Your task to perform on an android device: toggle improve location accuracy Image 0: 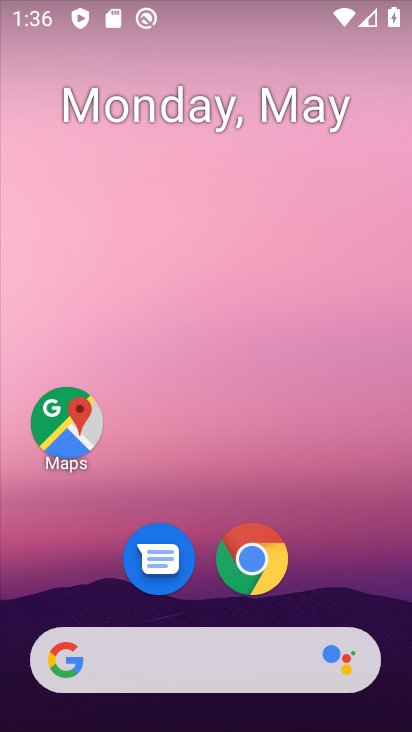
Step 0: drag from (361, 570) to (268, 53)
Your task to perform on an android device: toggle improve location accuracy Image 1: 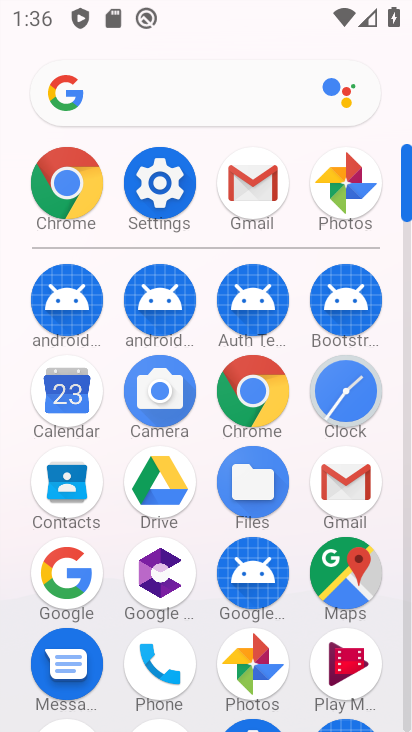
Step 1: click (173, 199)
Your task to perform on an android device: toggle improve location accuracy Image 2: 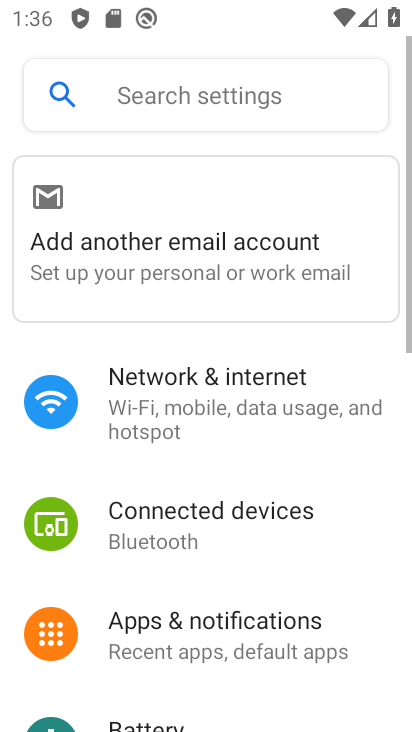
Step 2: drag from (265, 577) to (301, 217)
Your task to perform on an android device: toggle improve location accuracy Image 3: 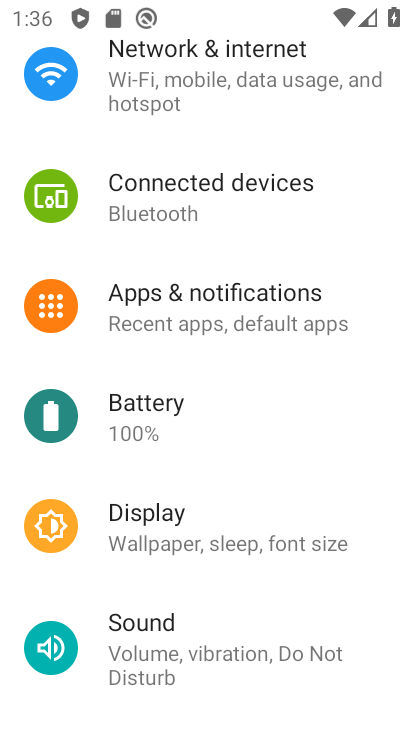
Step 3: drag from (249, 605) to (329, 211)
Your task to perform on an android device: toggle improve location accuracy Image 4: 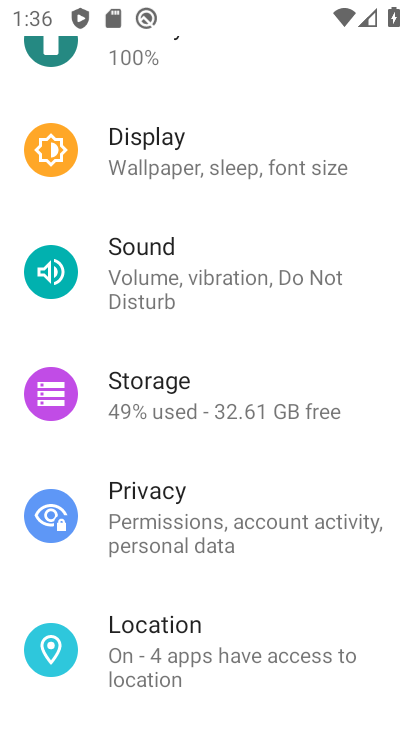
Step 4: click (220, 622)
Your task to perform on an android device: toggle improve location accuracy Image 5: 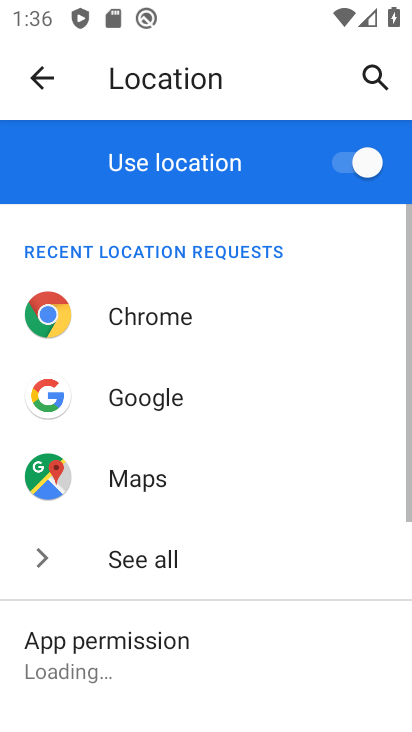
Step 5: drag from (228, 595) to (289, 185)
Your task to perform on an android device: toggle improve location accuracy Image 6: 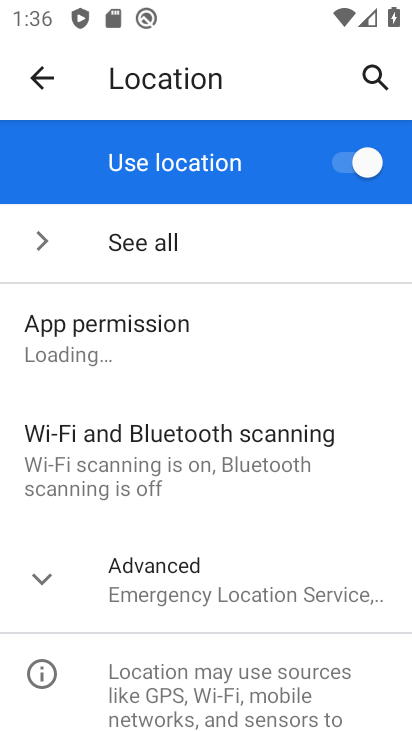
Step 6: click (209, 599)
Your task to perform on an android device: toggle improve location accuracy Image 7: 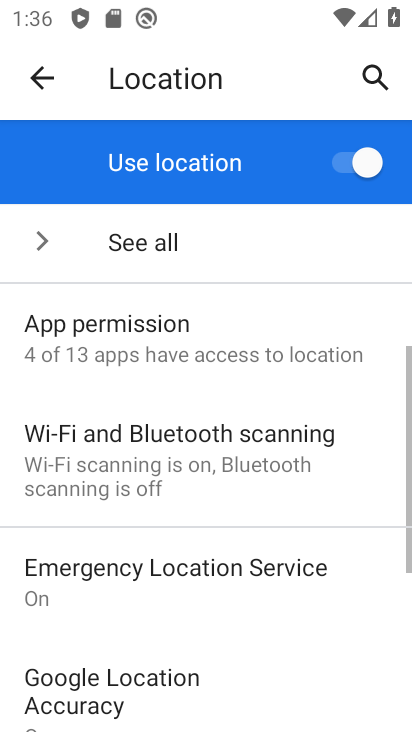
Step 7: drag from (267, 619) to (316, 207)
Your task to perform on an android device: toggle improve location accuracy Image 8: 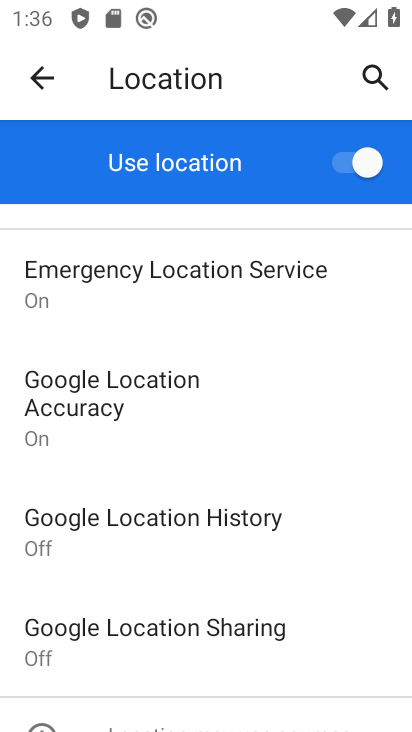
Step 8: click (142, 395)
Your task to perform on an android device: toggle improve location accuracy Image 9: 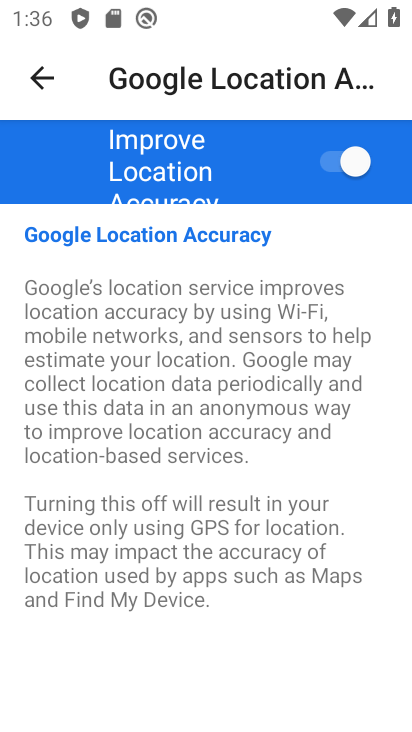
Step 9: click (328, 163)
Your task to perform on an android device: toggle improve location accuracy Image 10: 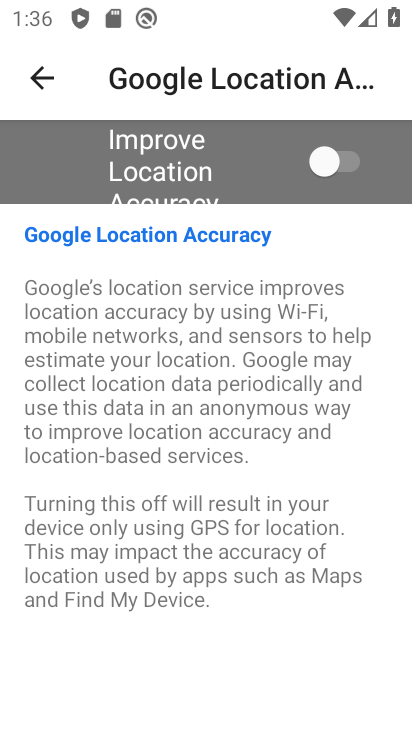
Step 10: task complete